Your task to perform on an android device: visit the assistant section in the google photos Image 0: 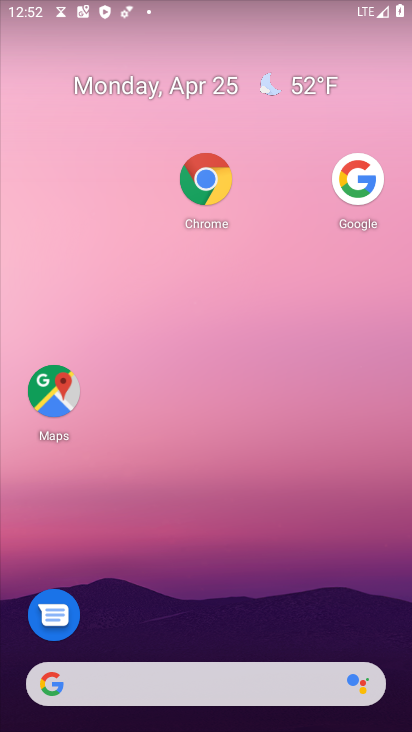
Step 0: drag from (152, 488) to (260, 209)
Your task to perform on an android device: visit the assistant section in the google photos Image 1: 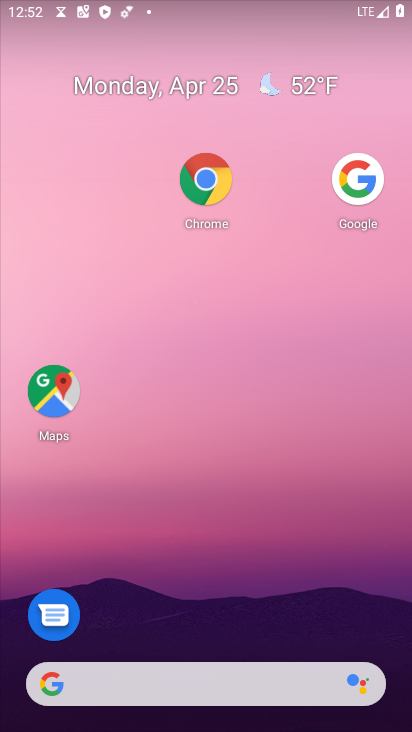
Step 1: drag from (254, 589) to (349, 143)
Your task to perform on an android device: visit the assistant section in the google photos Image 2: 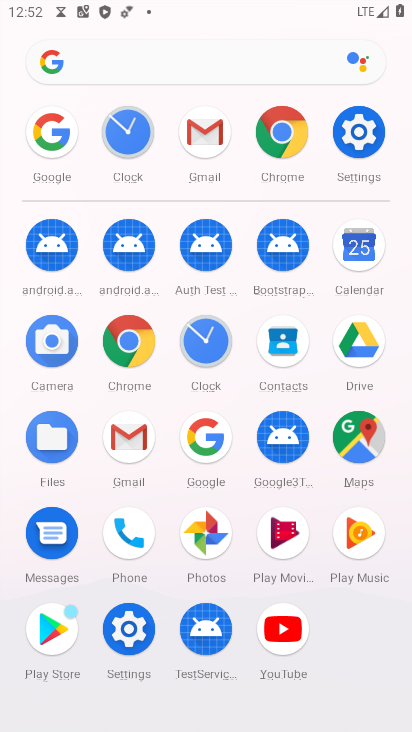
Step 2: click (202, 532)
Your task to perform on an android device: visit the assistant section in the google photos Image 3: 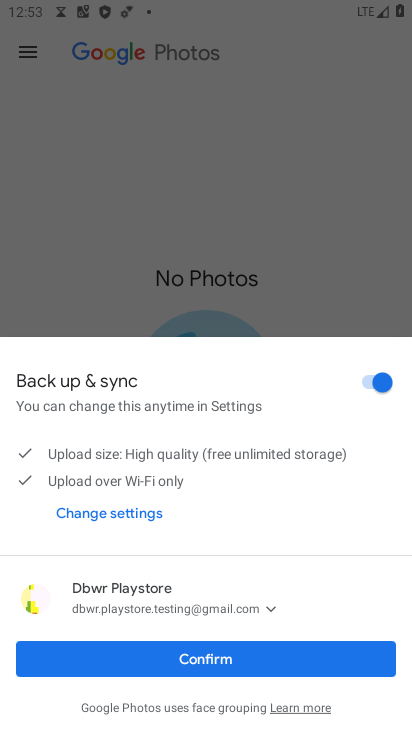
Step 3: click (178, 659)
Your task to perform on an android device: visit the assistant section in the google photos Image 4: 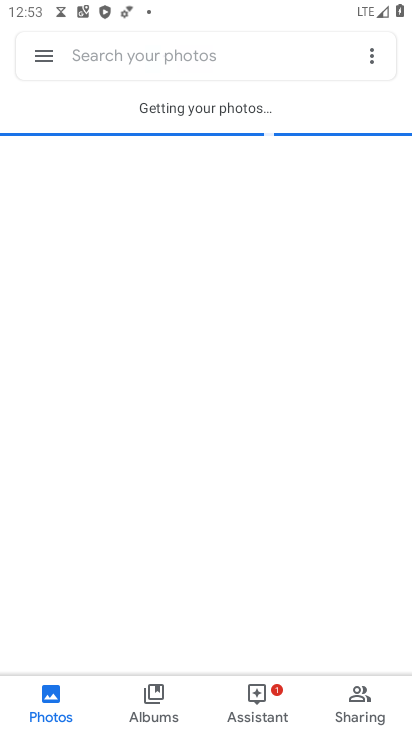
Step 4: click (251, 692)
Your task to perform on an android device: visit the assistant section in the google photos Image 5: 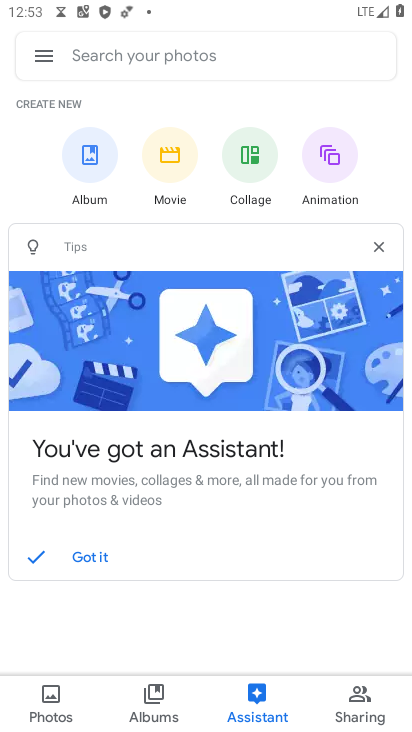
Step 5: task complete